Your task to perform on an android device: Open Android settings Image 0: 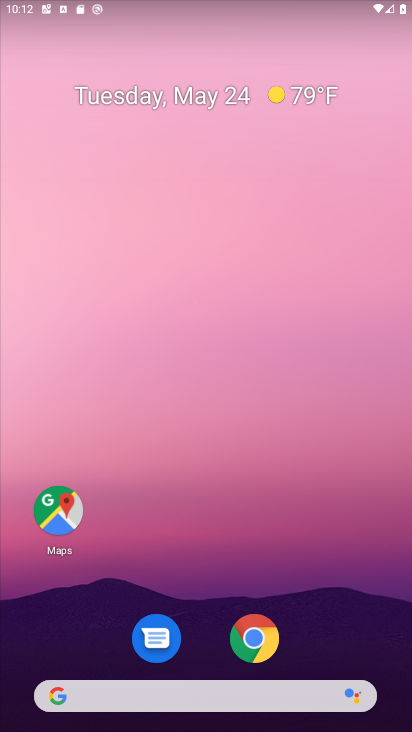
Step 0: drag from (292, 503) to (355, 38)
Your task to perform on an android device: Open Android settings Image 1: 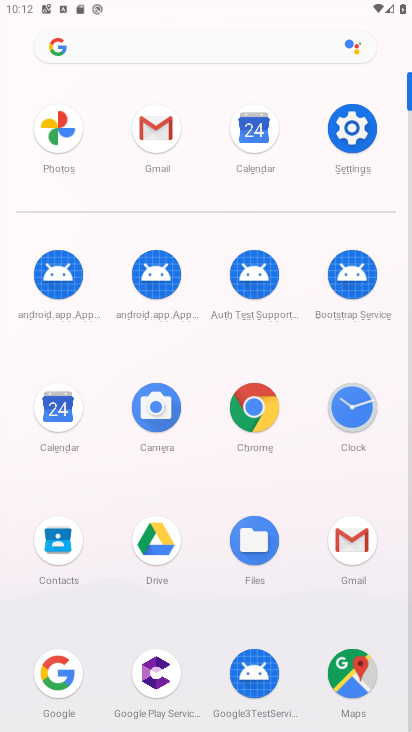
Step 1: click (356, 129)
Your task to perform on an android device: Open Android settings Image 2: 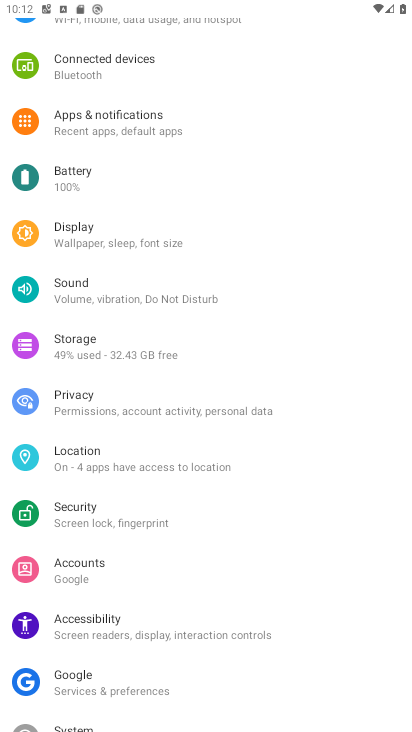
Step 2: drag from (129, 711) to (255, 29)
Your task to perform on an android device: Open Android settings Image 3: 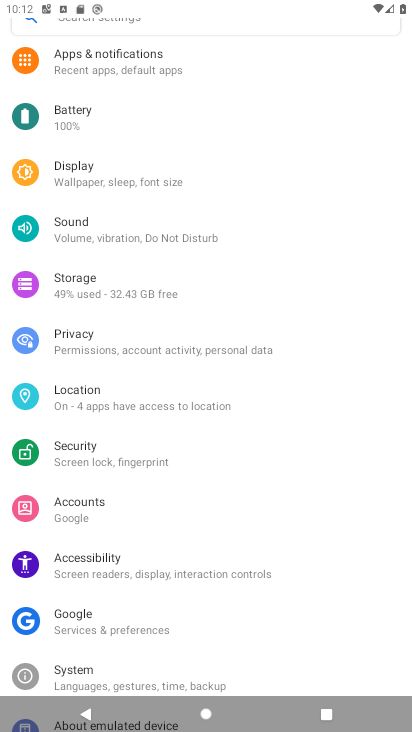
Step 3: drag from (184, 511) to (239, 49)
Your task to perform on an android device: Open Android settings Image 4: 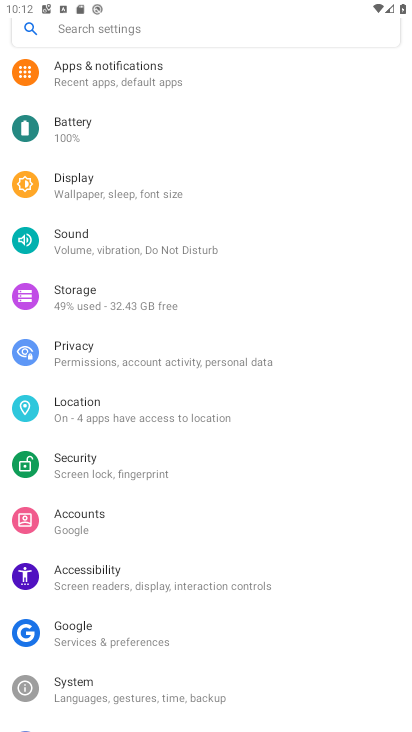
Step 4: drag from (191, 724) to (261, 81)
Your task to perform on an android device: Open Android settings Image 5: 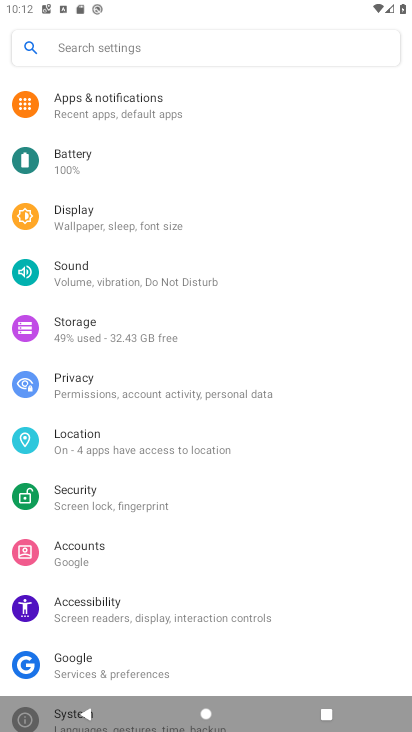
Step 5: drag from (255, 655) to (234, 57)
Your task to perform on an android device: Open Android settings Image 6: 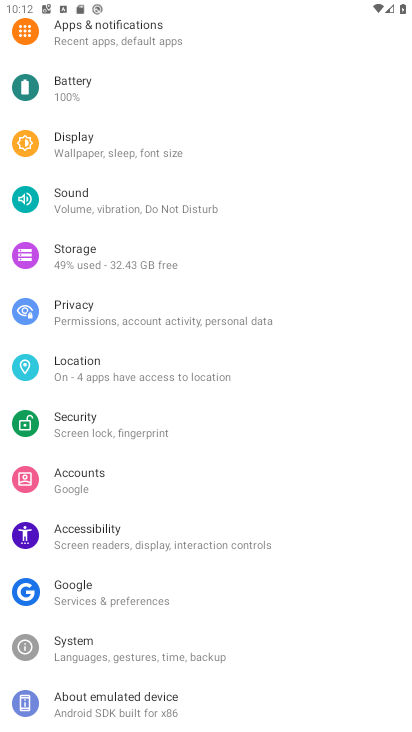
Step 6: click (154, 714)
Your task to perform on an android device: Open Android settings Image 7: 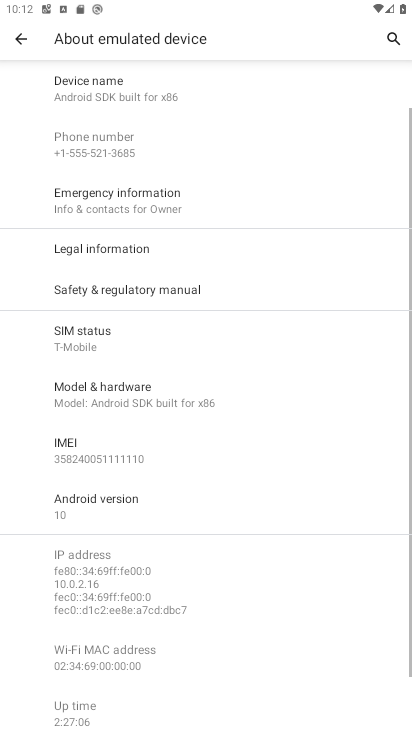
Step 7: task complete